Your task to perform on an android device: check battery use Image 0: 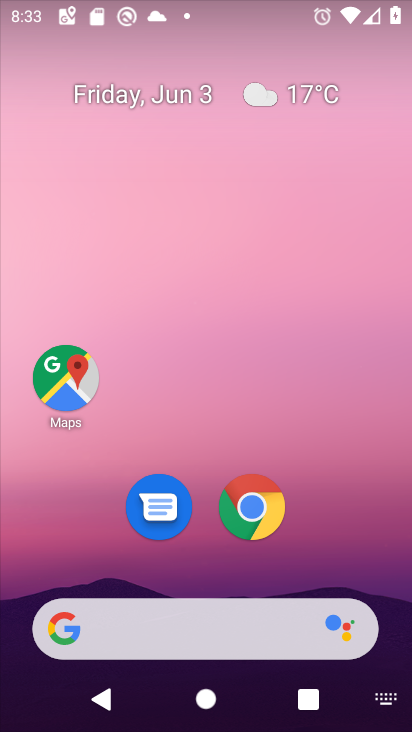
Step 0: drag from (309, 405) to (188, 1)
Your task to perform on an android device: check battery use Image 1: 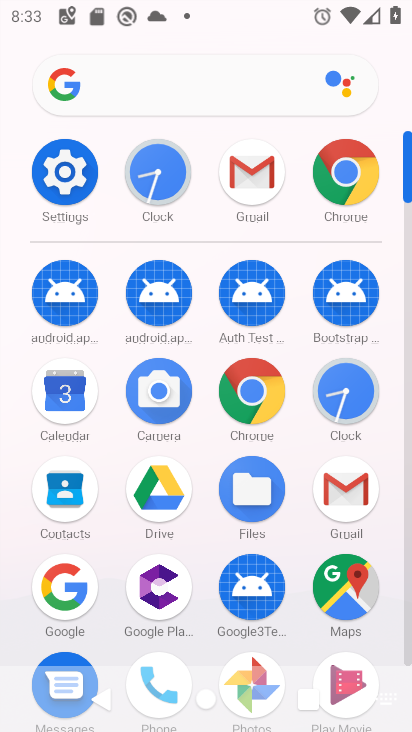
Step 1: click (76, 158)
Your task to perform on an android device: check battery use Image 2: 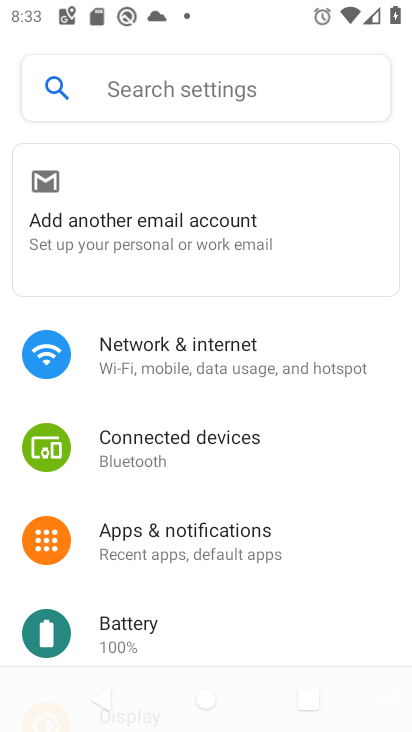
Step 2: click (199, 616)
Your task to perform on an android device: check battery use Image 3: 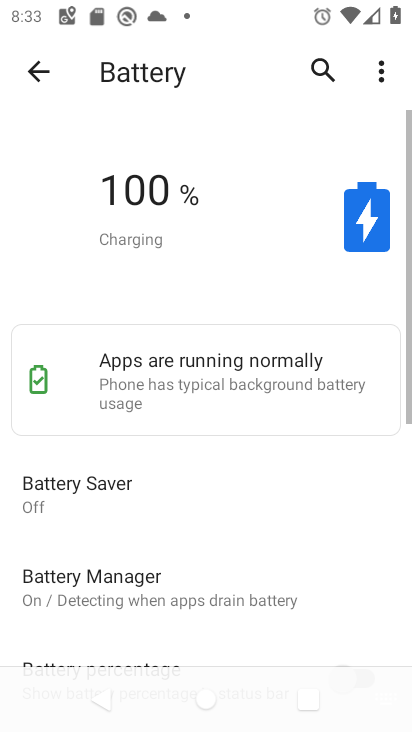
Step 3: click (377, 78)
Your task to perform on an android device: check battery use Image 4: 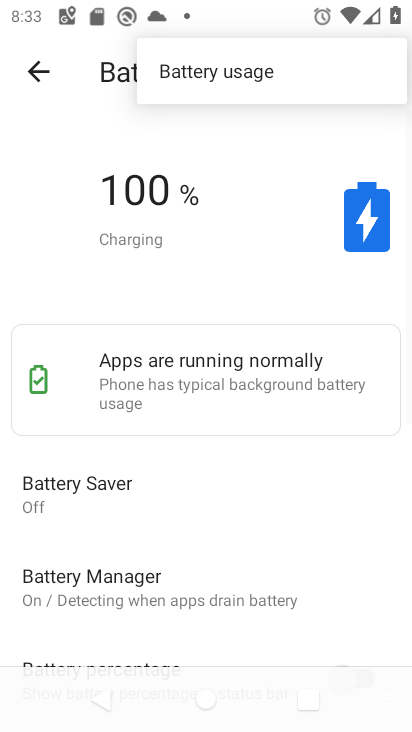
Step 4: click (284, 66)
Your task to perform on an android device: check battery use Image 5: 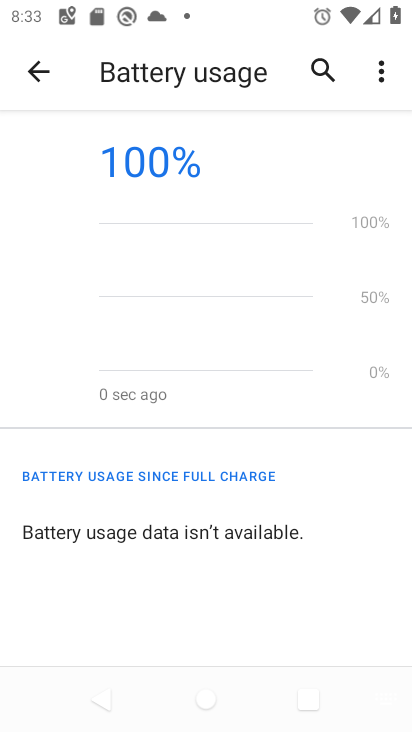
Step 5: task complete